Your task to perform on an android device: Find coffee shops on Maps Image 0: 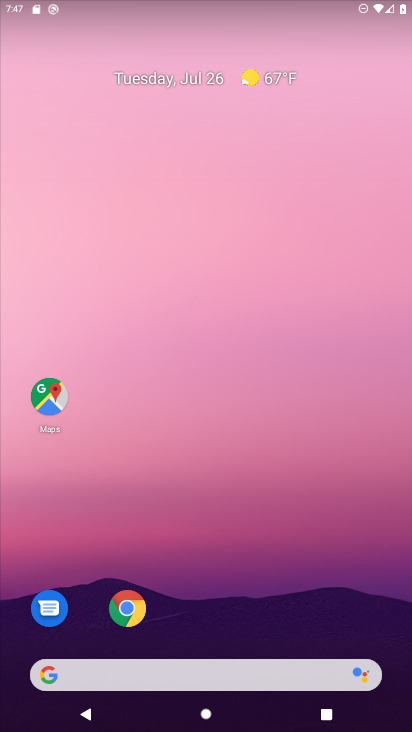
Step 0: click (58, 395)
Your task to perform on an android device: Find coffee shops on Maps Image 1: 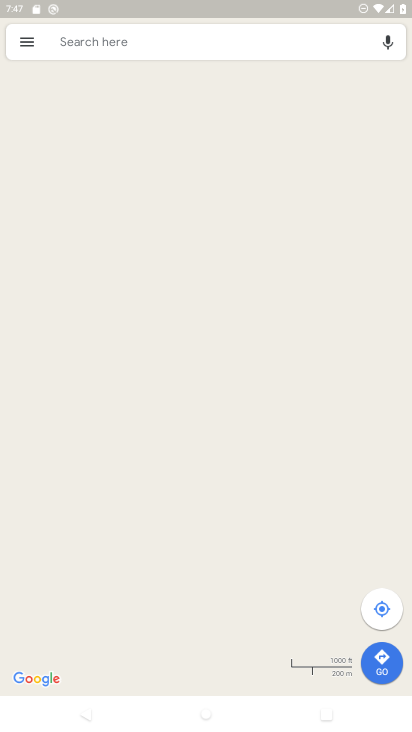
Step 1: click (172, 41)
Your task to perform on an android device: Find coffee shops on Maps Image 2: 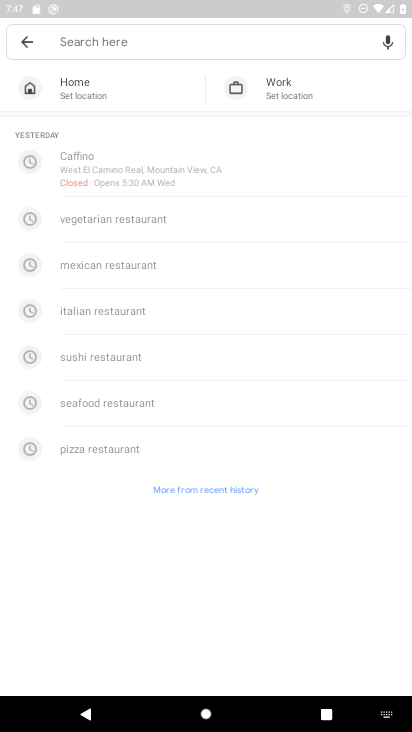
Step 2: type "coffee shops"
Your task to perform on an android device: Find coffee shops on Maps Image 3: 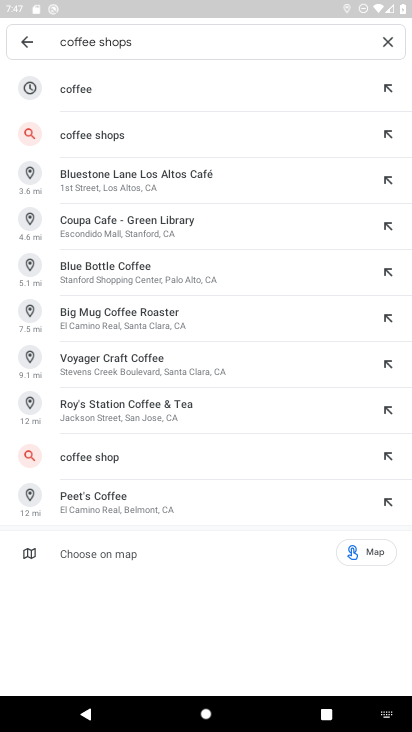
Step 3: click (127, 133)
Your task to perform on an android device: Find coffee shops on Maps Image 4: 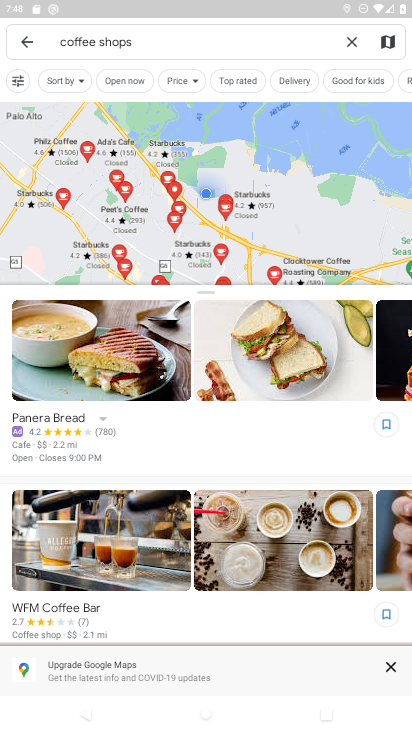
Step 4: task complete